Your task to perform on an android device: toggle location history Image 0: 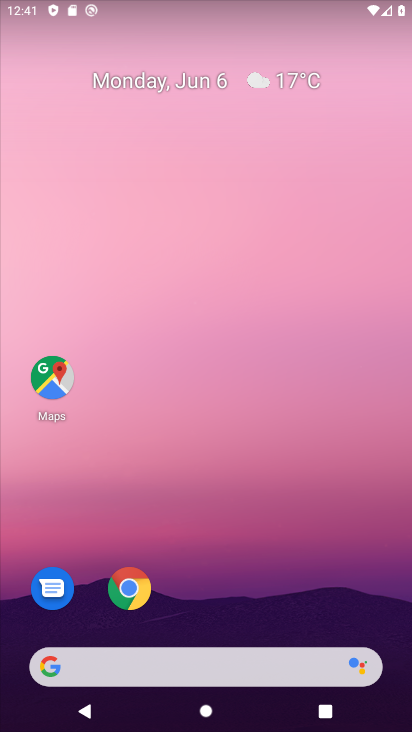
Step 0: drag from (159, 729) to (3, 128)
Your task to perform on an android device: toggle location history Image 1: 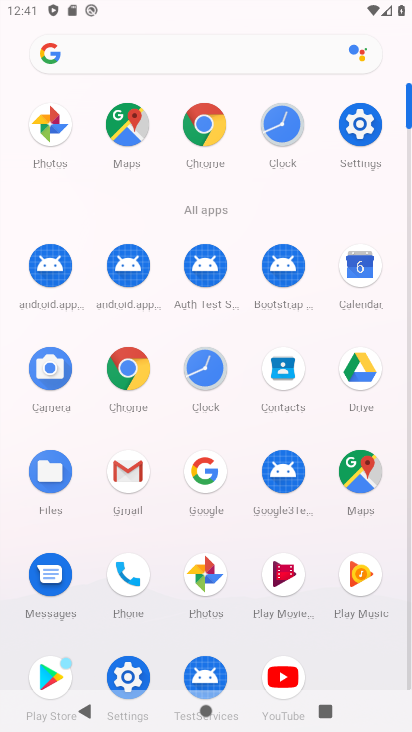
Step 1: click (364, 139)
Your task to perform on an android device: toggle location history Image 2: 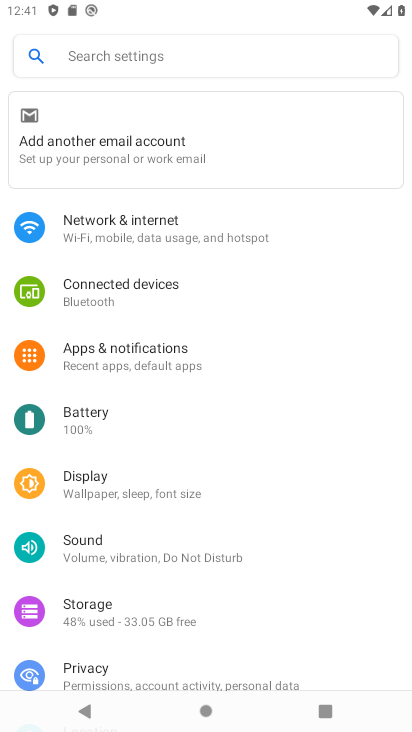
Step 2: drag from (183, 537) to (176, 284)
Your task to perform on an android device: toggle location history Image 3: 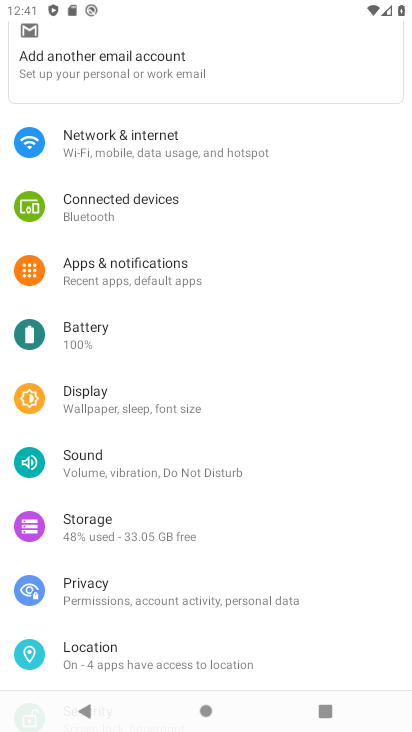
Step 3: click (146, 658)
Your task to perform on an android device: toggle location history Image 4: 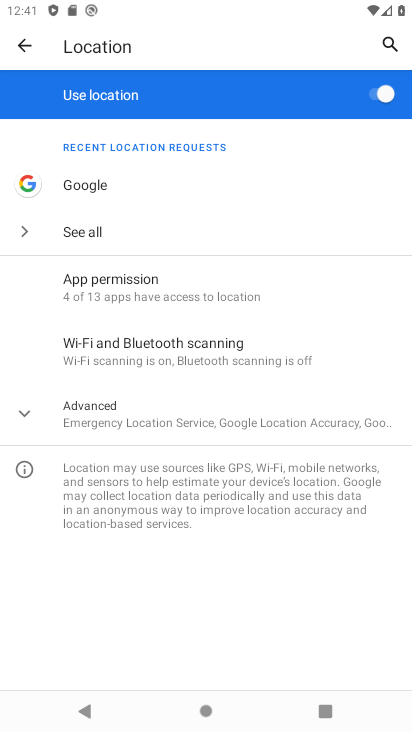
Step 4: click (117, 415)
Your task to perform on an android device: toggle location history Image 5: 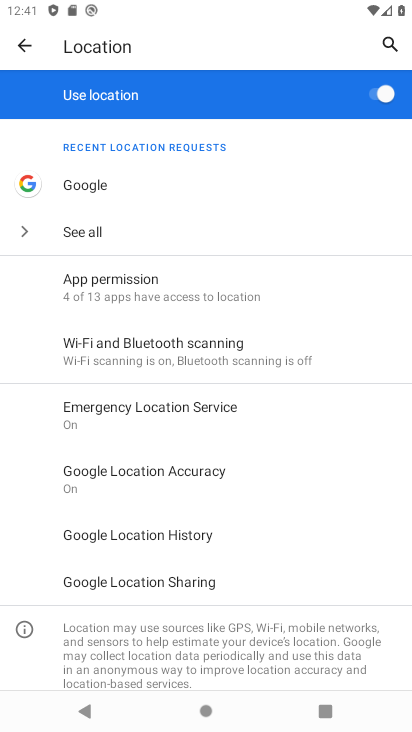
Step 5: click (181, 533)
Your task to perform on an android device: toggle location history Image 6: 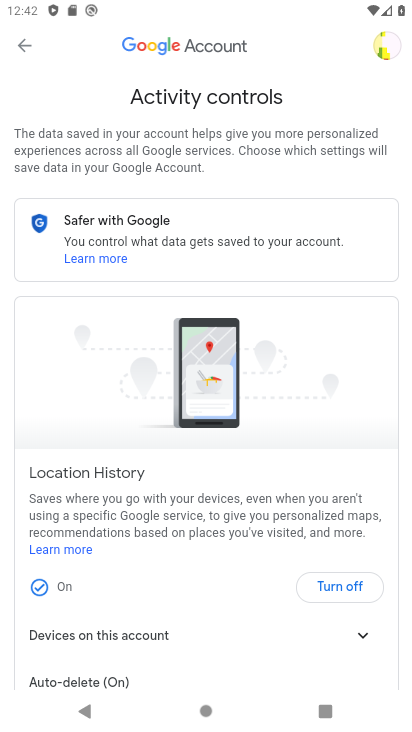
Step 6: click (325, 587)
Your task to perform on an android device: toggle location history Image 7: 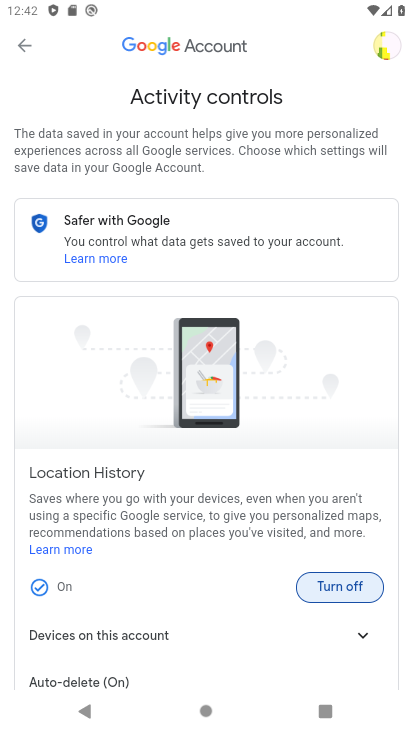
Step 7: click (356, 592)
Your task to perform on an android device: toggle location history Image 8: 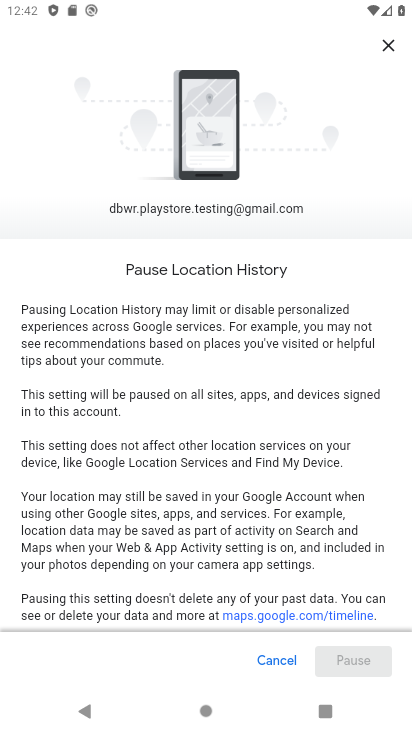
Step 8: drag from (323, 568) to (322, 213)
Your task to perform on an android device: toggle location history Image 9: 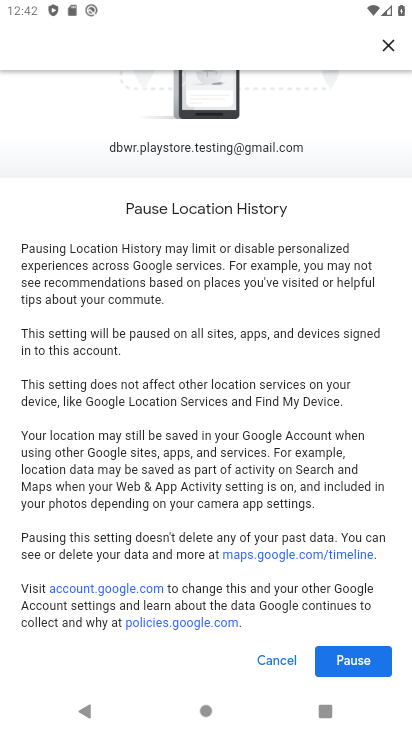
Step 9: click (351, 660)
Your task to perform on an android device: toggle location history Image 10: 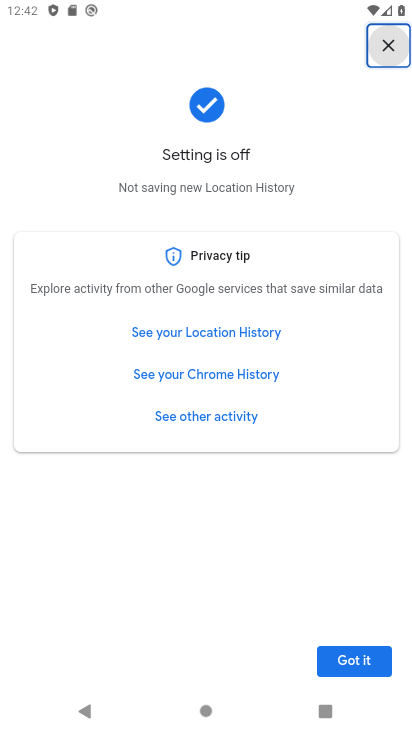
Step 10: click (355, 658)
Your task to perform on an android device: toggle location history Image 11: 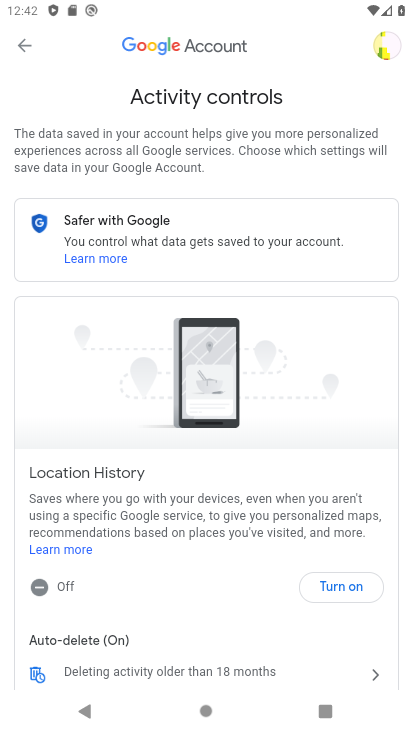
Step 11: task complete